Your task to perform on an android device: turn off priority inbox in the gmail app Image 0: 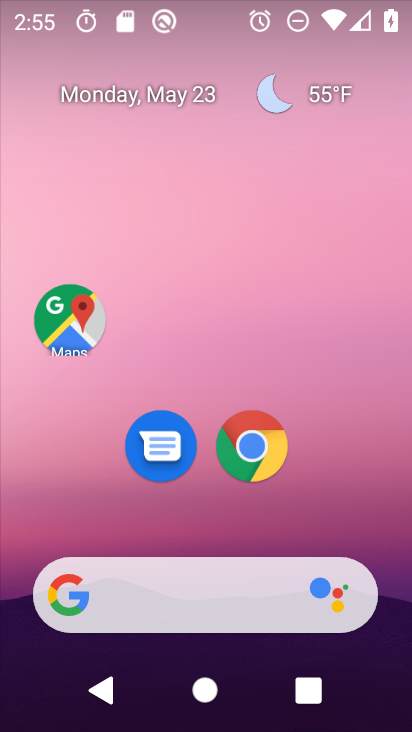
Step 0: drag from (185, 529) to (202, 149)
Your task to perform on an android device: turn off priority inbox in the gmail app Image 1: 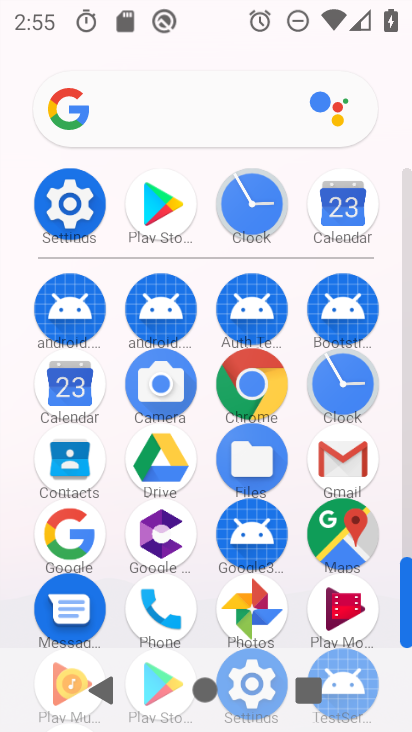
Step 1: click (325, 470)
Your task to perform on an android device: turn off priority inbox in the gmail app Image 2: 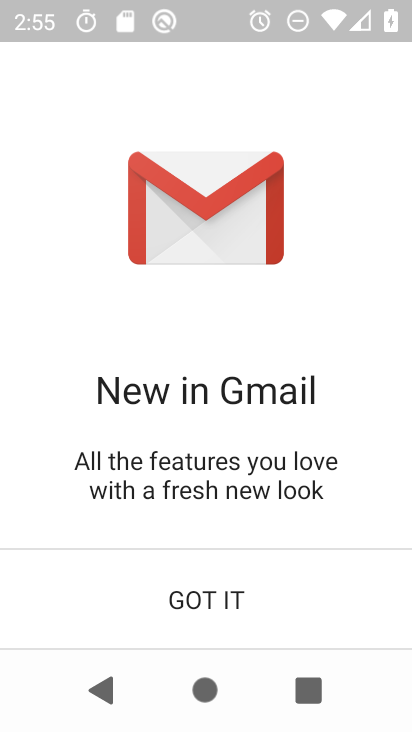
Step 2: click (295, 582)
Your task to perform on an android device: turn off priority inbox in the gmail app Image 3: 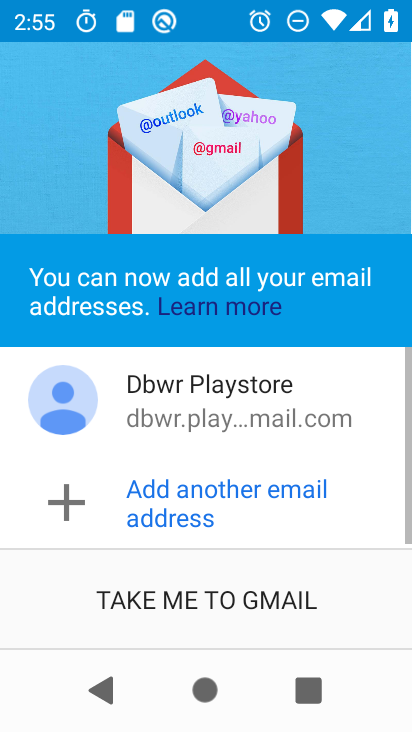
Step 3: click (297, 581)
Your task to perform on an android device: turn off priority inbox in the gmail app Image 4: 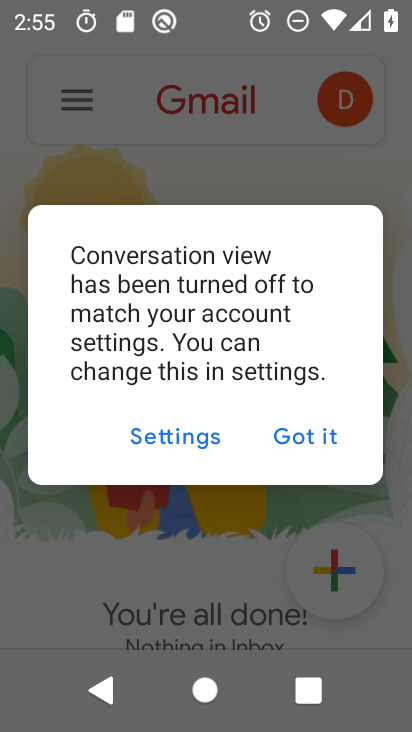
Step 4: click (300, 427)
Your task to perform on an android device: turn off priority inbox in the gmail app Image 5: 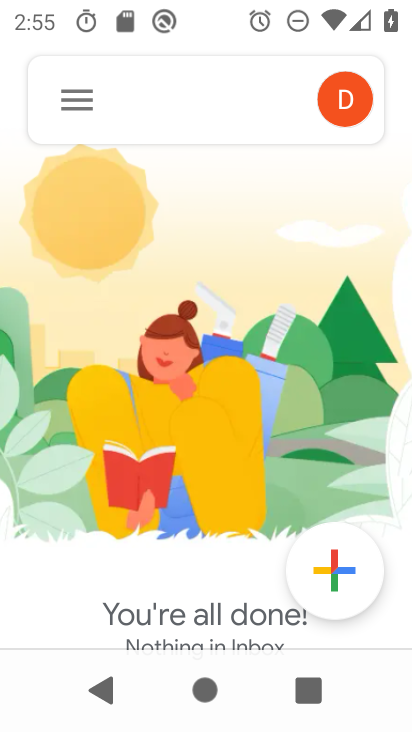
Step 5: click (83, 119)
Your task to perform on an android device: turn off priority inbox in the gmail app Image 6: 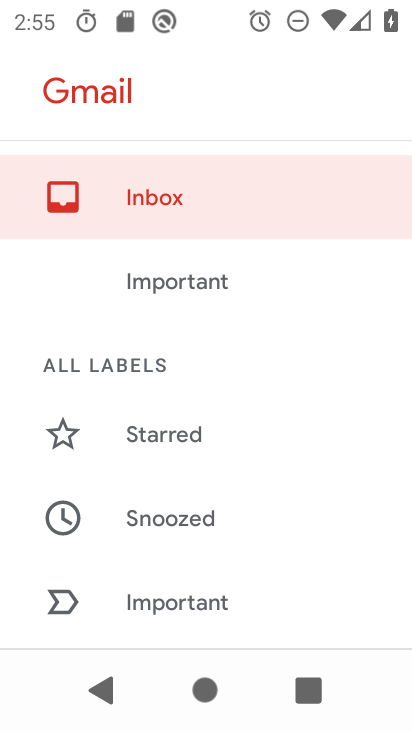
Step 6: drag from (202, 597) to (178, 206)
Your task to perform on an android device: turn off priority inbox in the gmail app Image 7: 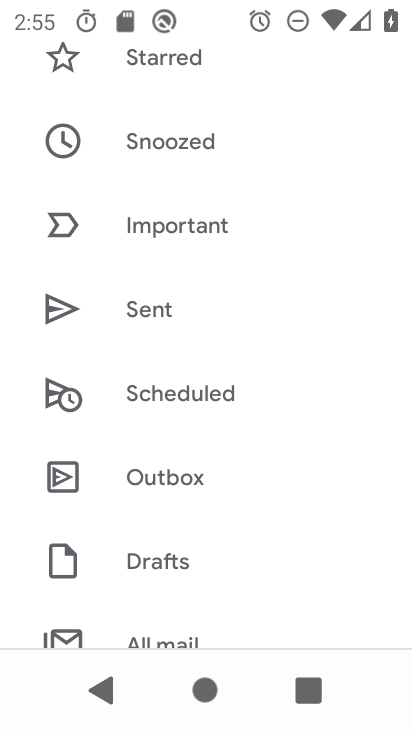
Step 7: drag from (228, 560) to (201, 318)
Your task to perform on an android device: turn off priority inbox in the gmail app Image 8: 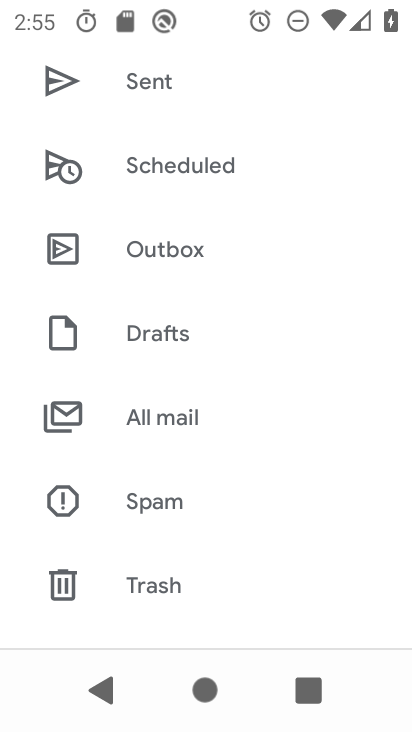
Step 8: drag from (198, 559) to (187, 312)
Your task to perform on an android device: turn off priority inbox in the gmail app Image 9: 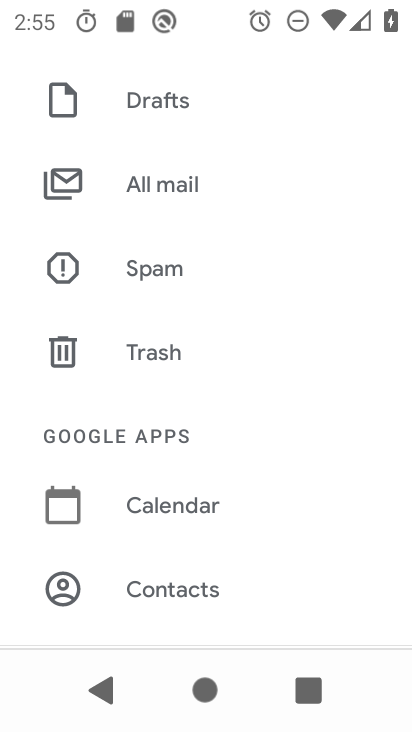
Step 9: drag from (188, 583) to (191, 343)
Your task to perform on an android device: turn off priority inbox in the gmail app Image 10: 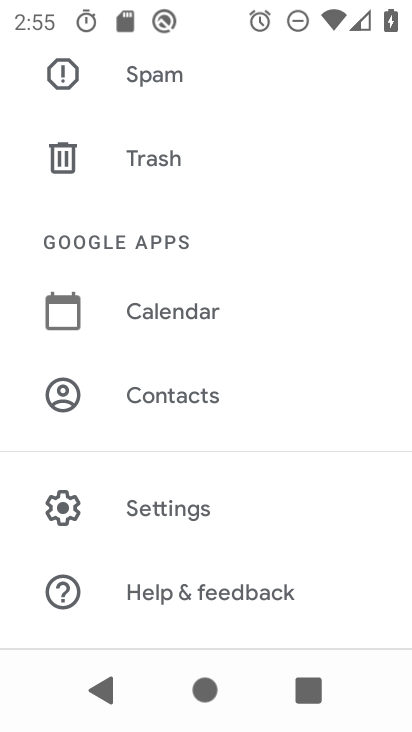
Step 10: click (191, 512)
Your task to perform on an android device: turn off priority inbox in the gmail app Image 11: 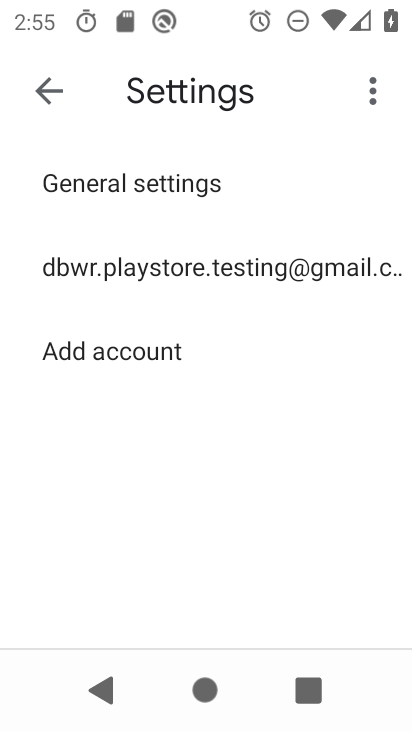
Step 11: click (216, 272)
Your task to perform on an android device: turn off priority inbox in the gmail app Image 12: 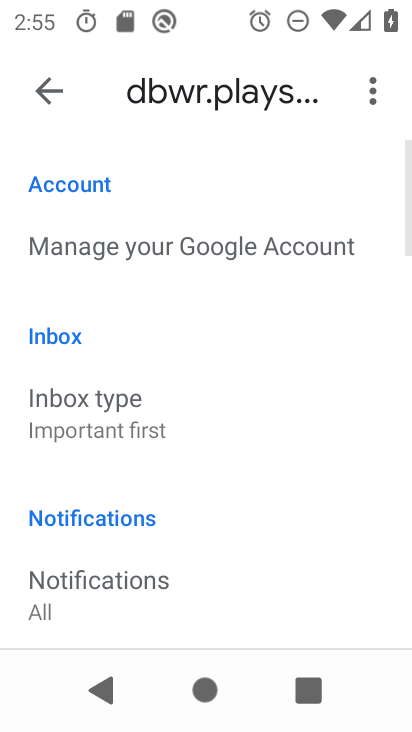
Step 12: drag from (196, 539) to (197, 476)
Your task to perform on an android device: turn off priority inbox in the gmail app Image 13: 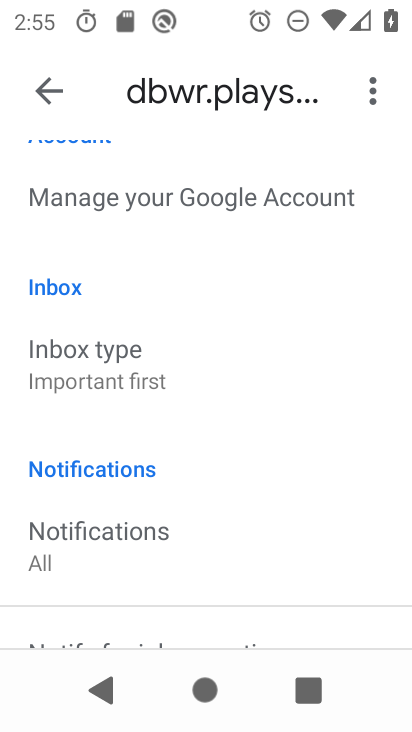
Step 13: click (160, 355)
Your task to perform on an android device: turn off priority inbox in the gmail app Image 14: 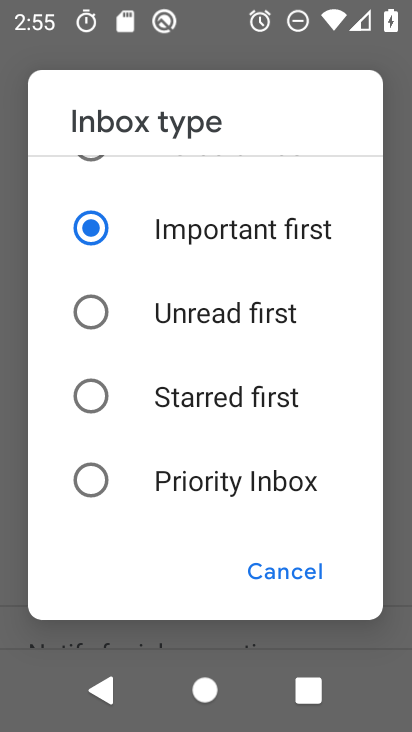
Step 14: task complete